Your task to perform on an android device: Open the map Image 0: 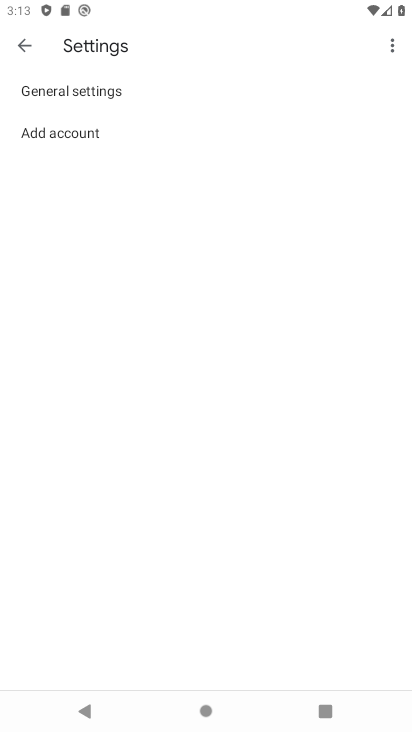
Step 0: click (24, 46)
Your task to perform on an android device: Open the map Image 1: 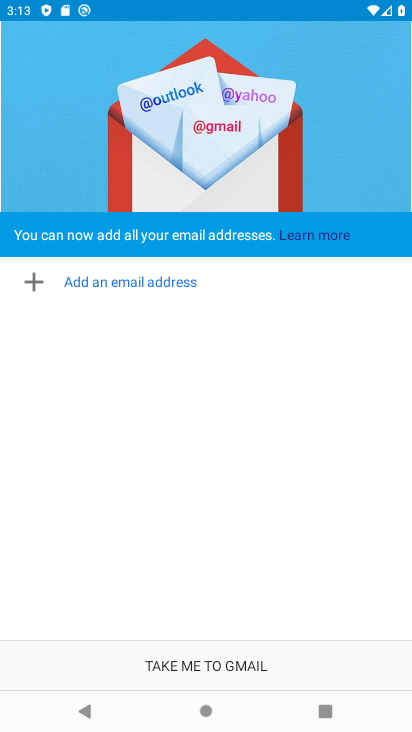
Step 1: press back button
Your task to perform on an android device: Open the map Image 2: 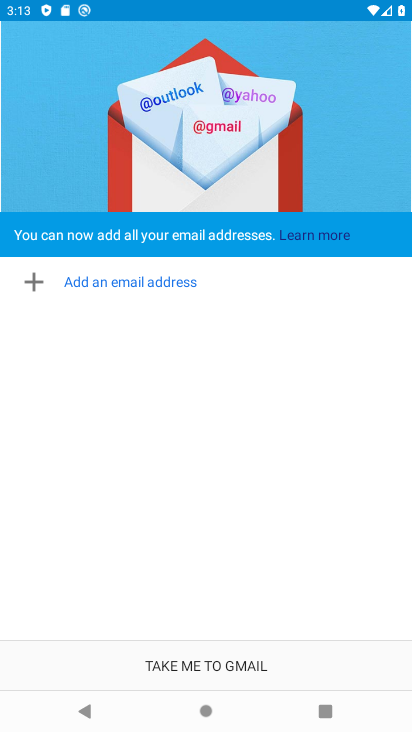
Step 2: press back button
Your task to perform on an android device: Open the map Image 3: 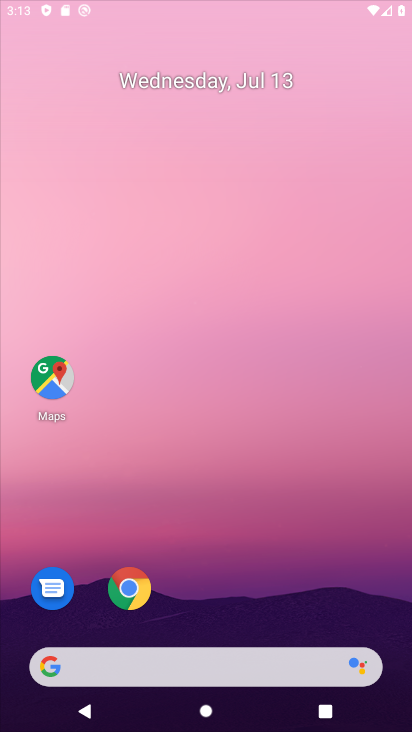
Step 3: press back button
Your task to perform on an android device: Open the map Image 4: 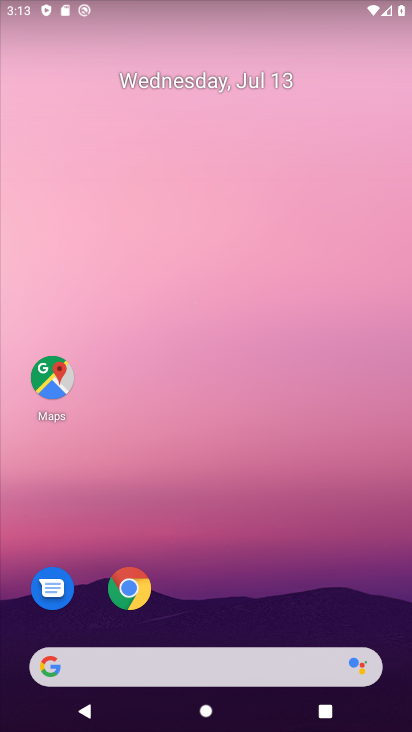
Step 4: press home button
Your task to perform on an android device: Open the map Image 5: 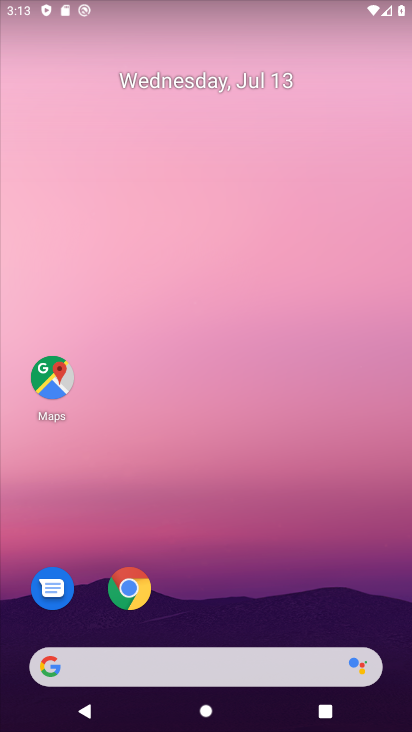
Step 5: click (60, 374)
Your task to perform on an android device: Open the map Image 6: 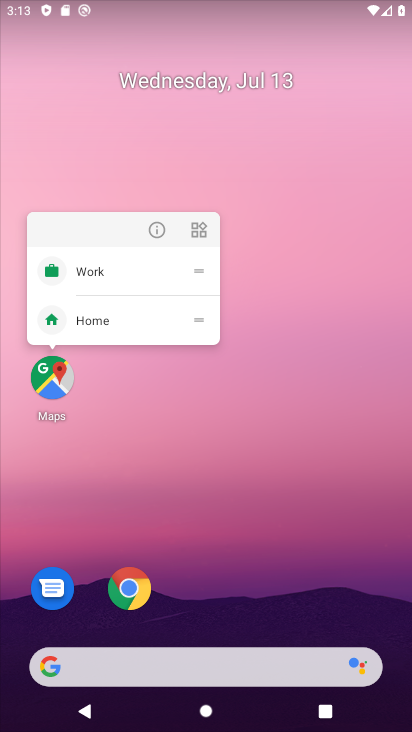
Step 6: click (57, 377)
Your task to perform on an android device: Open the map Image 7: 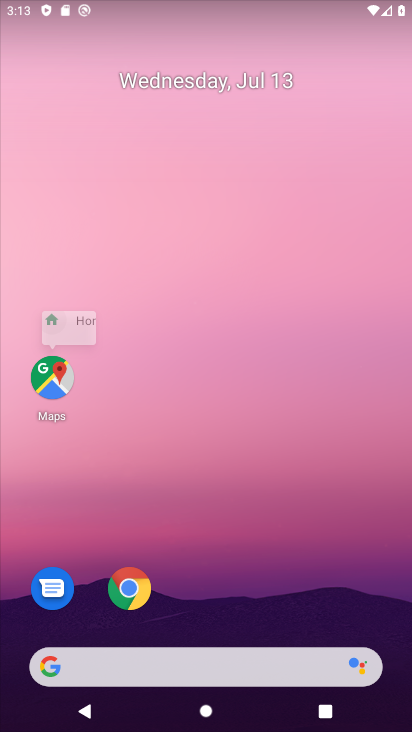
Step 7: click (57, 377)
Your task to perform on an android device: Open the map Image 8: 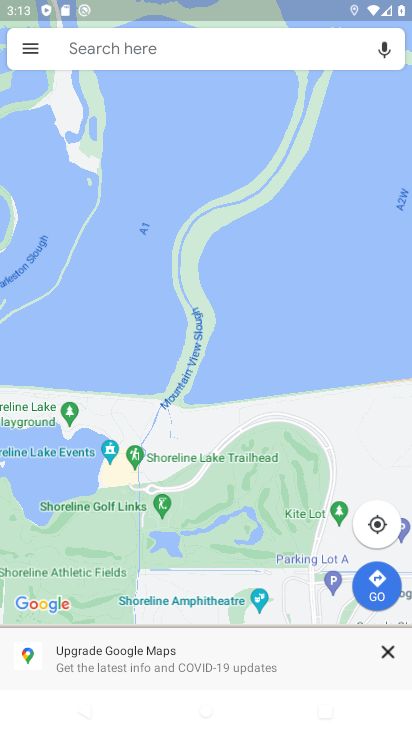
Step 8: task complete